Your task to perform on an android device: Go to Google maps Image 0: 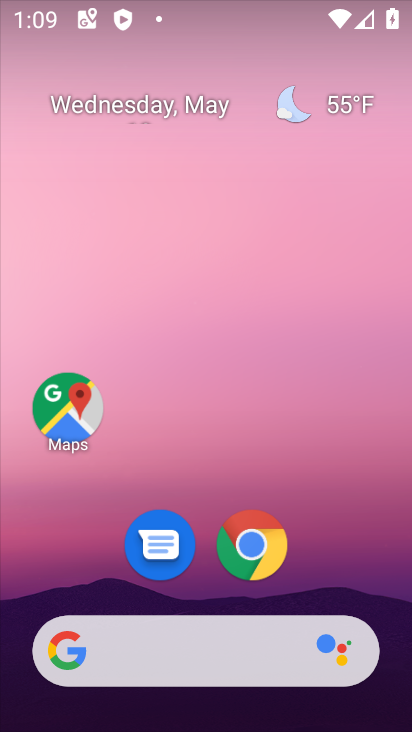
Step 0: click (85, 408)
Your task to perform on an android device: Go to Google maps Image 1: 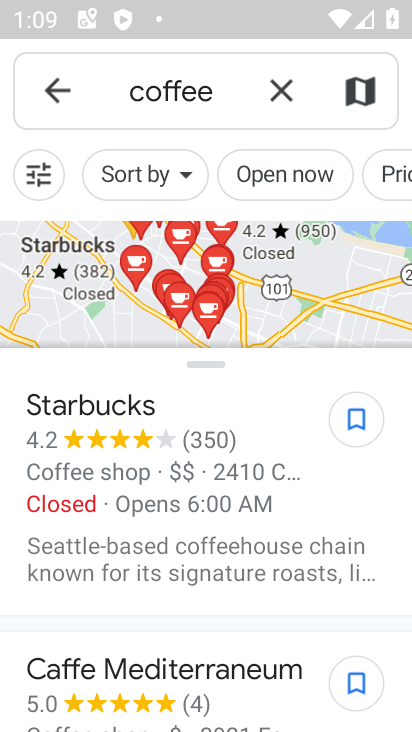
Step 1: task complete